Your task to perform on an android device: What's the weather going to be tomorrow? Image 0: 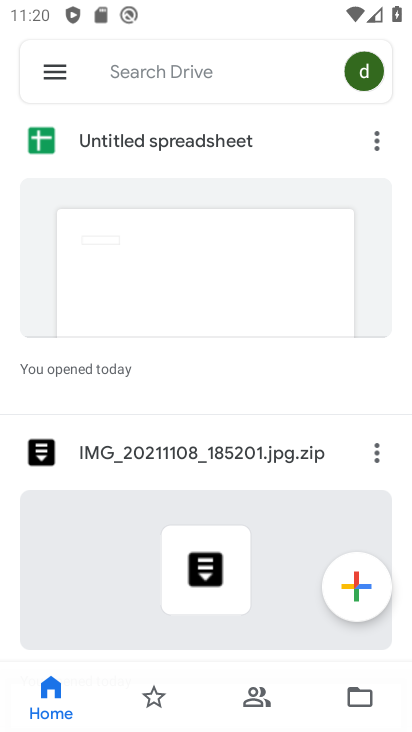
Step 0: press home button
Your task to perform on an android device: What's the weather going to be tomorrow? Image 1: 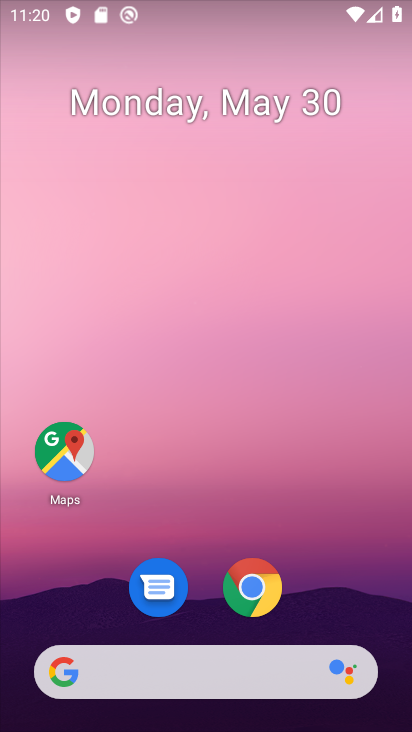
Step 1: click (220, 687)
Your task to perform on an android device: What's the weather going to be tomorrow? Image 2: 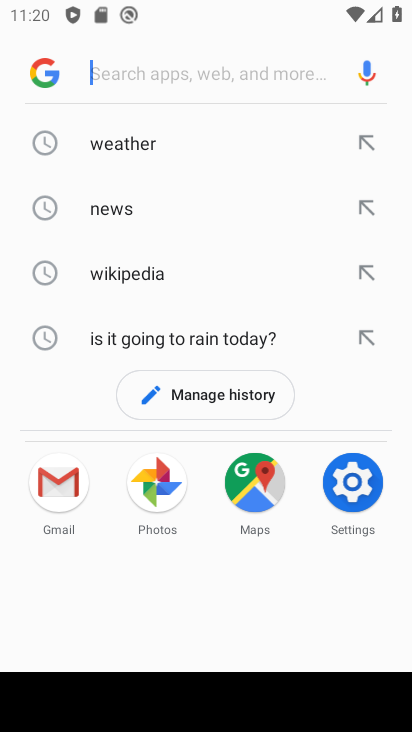
Step 2: click (185, 122)
Your task to perform on an android device: What's the weather going to be tomorrow? Image 3: 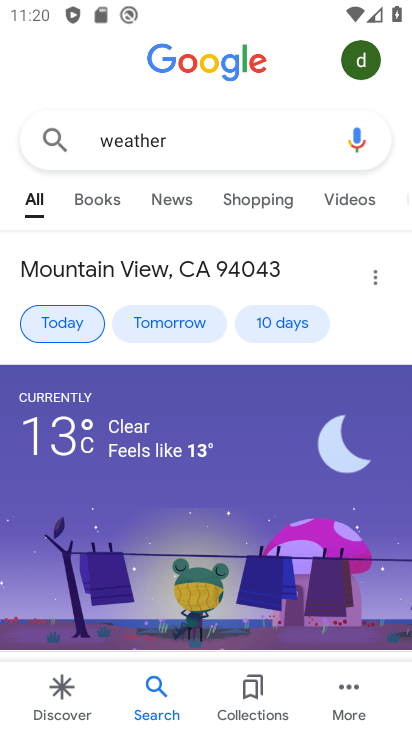
Step 3: click (207, 324)
Your task to perform on an android device: What's the weather going to be tomorrow? Image 4: 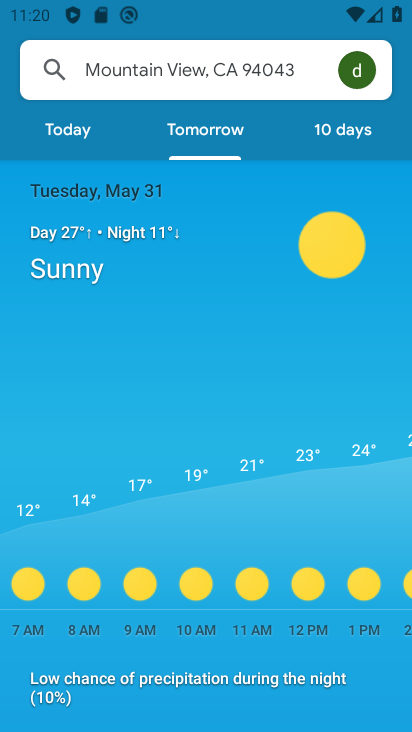
Step 4: task complete